Your task to perform on an android device: What's on my calendar today? Image 0: 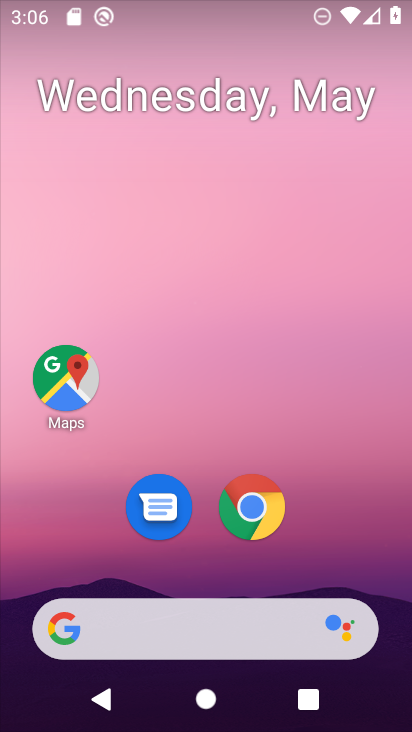
Step 0: drag from (200, 574) to (248, 176)
Your task to perform on an android device: What's on my calendar today? Image 1: 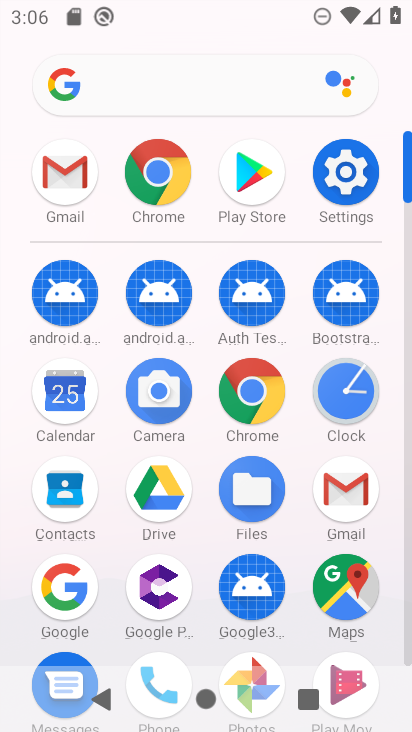
Step 1: click (80, 402)
Your task to perform on an android device: What's on my calendar today? Image 2: 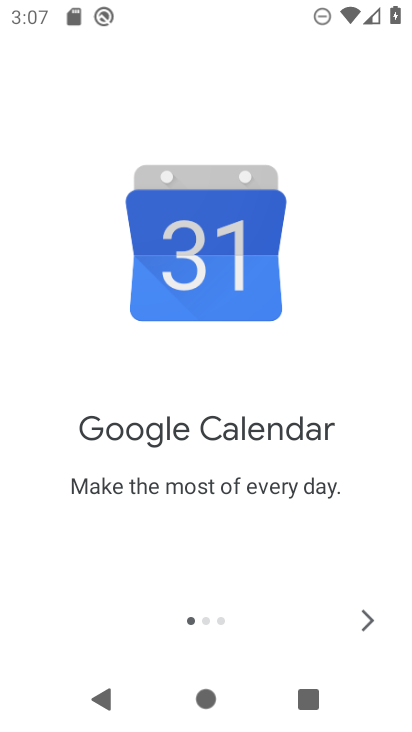
Step 2: click (355, 612)
Your task to perform on an android device: What's on my calendar today? Image 3: 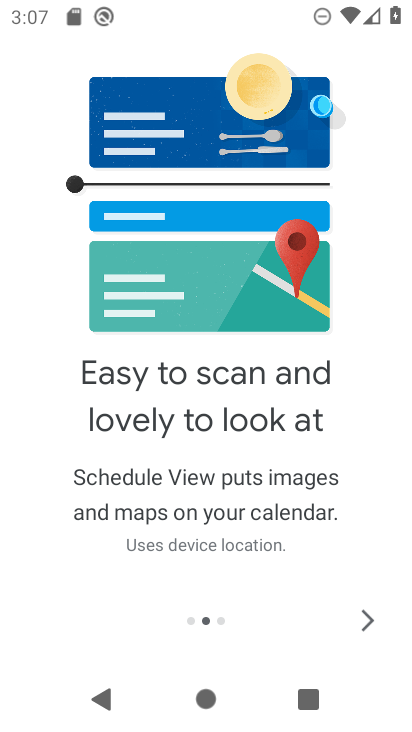
Step 3: click (358, 615)
Your task to perform on an android device: What's on my calendar today? Image 4: 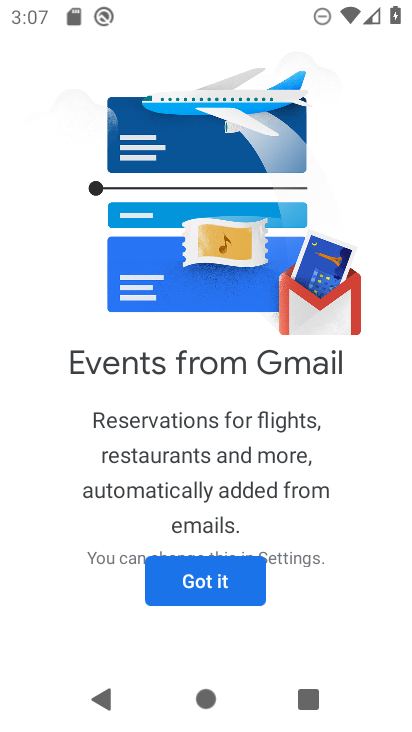
Step 4: click (232, 578)
Your task to perform on an android device: What's on my calendar today? Image 5: 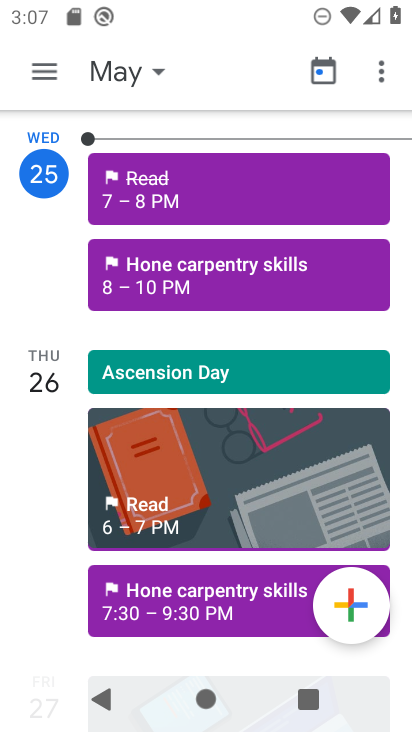
Step 5: click (37, 76)
Your task to perform on an android device: What's on my calendar today? Image 6: 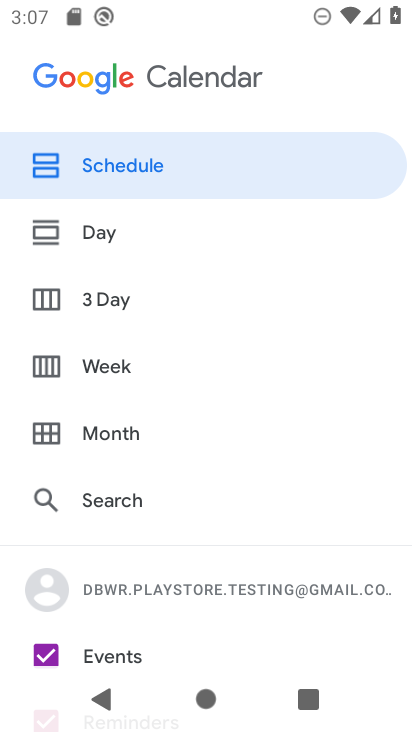
Step 6: click (105, 240)
Your task to perform on an android device: What's on my calendar today? Image 7: 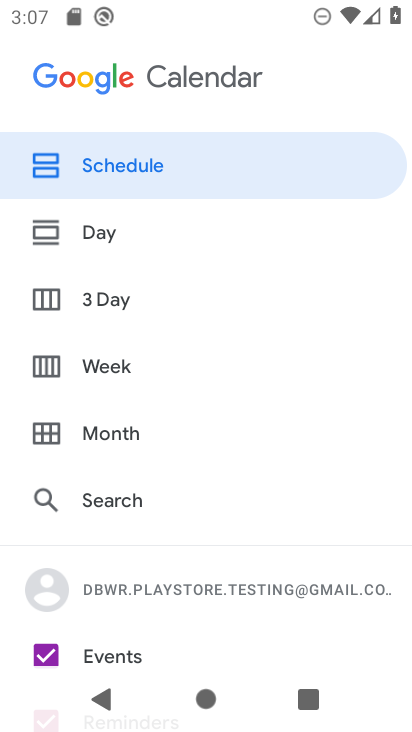
Step 7: click (105, 240)
Your task to perform on an android device: What's on my calendar today? Image 8: 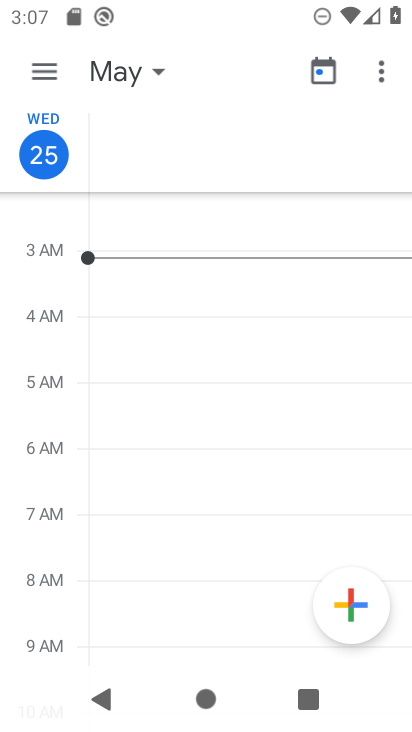
Step 8: task complete